Your task to perform on an android device: change notifications settings Image 0: 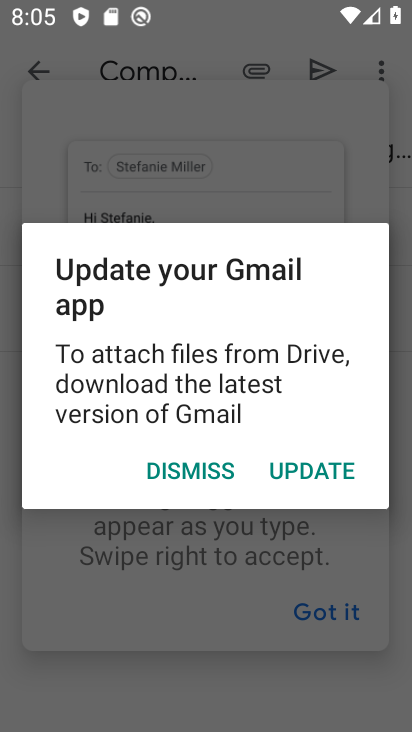
Step 0: click (308, 459)
Your task to perform on an android device: change notifications settings Image 1: 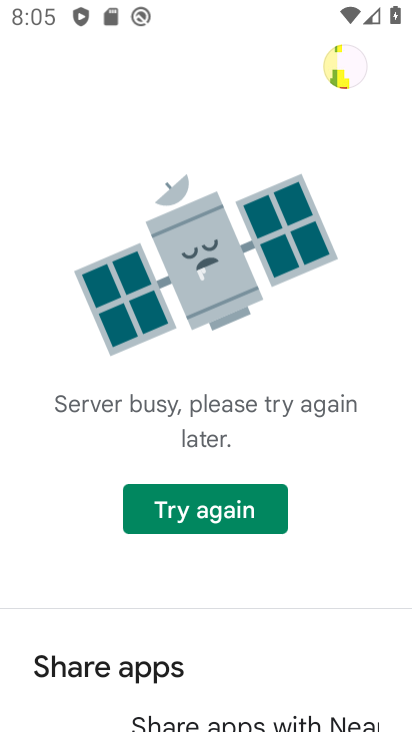
Step 1: press home button
Your task to perform on an android device: change notifications settings Image 2: 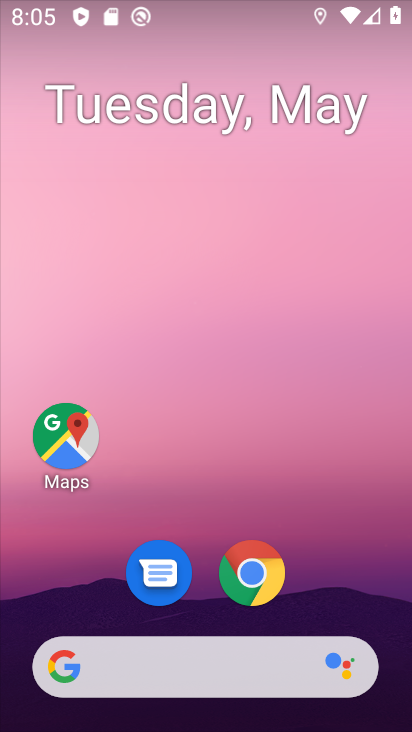
Step 2: drag from (393, 679) to (329, 247)
Your task to perform on an android device: change notifications settings Image 3: 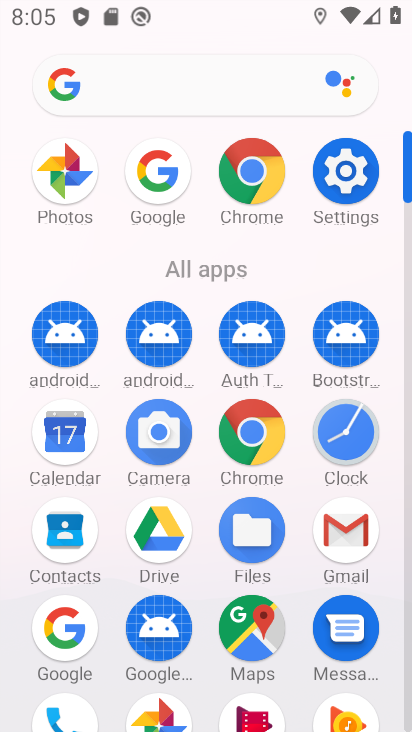
Step 3: click (359, 168)
Your task to perform on an android device: change notifications settings Image 4: 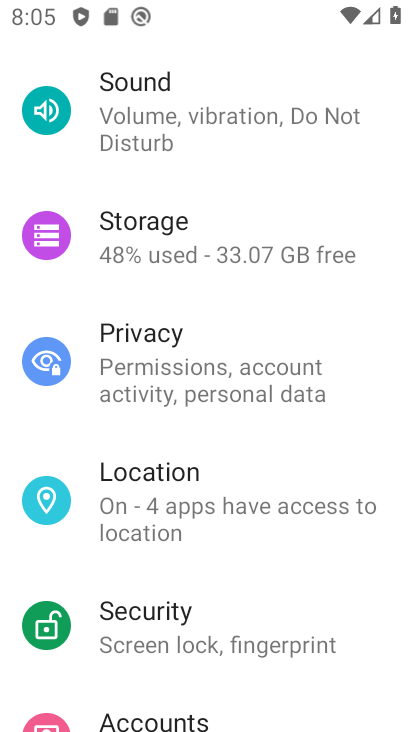
Step 4: click (270, 330)
Your task to perform on an android device: change notifications settings Image 5: 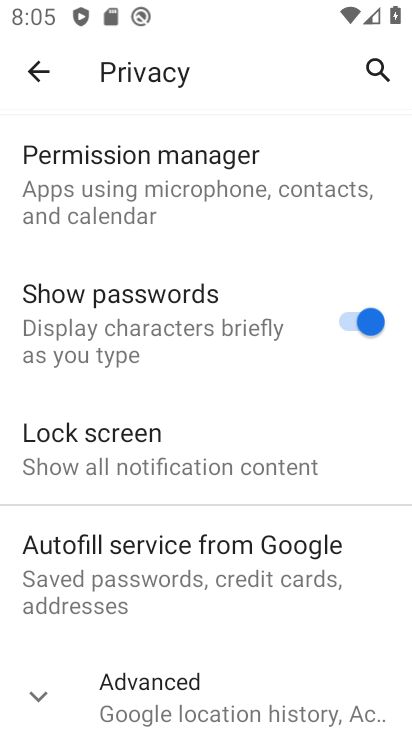
Step 5: click (32, 67)
Your task to perform on an android device: change notifications settings Image 6: 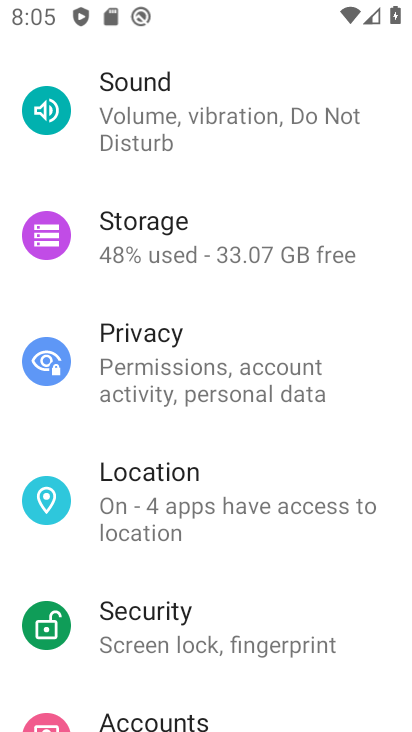
Step 6: drag from (265, 177) to (271, 581)
Your task to perform on an android device: change notifications settings Image 7: 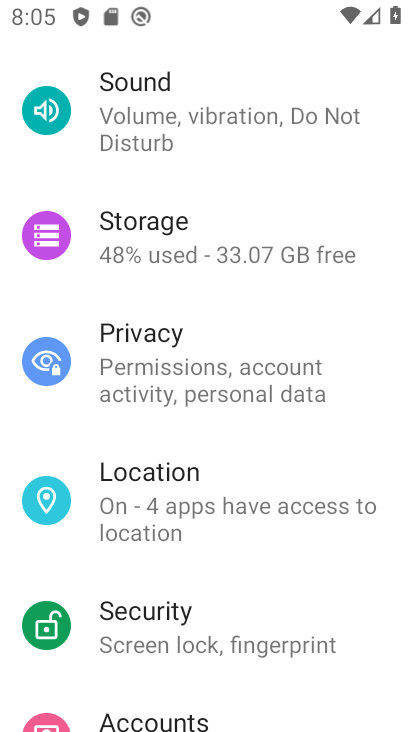
Step 7: drag from (335, 150) to (360, 568)
Your task to perform on an android device: change notifications settings Image 8: 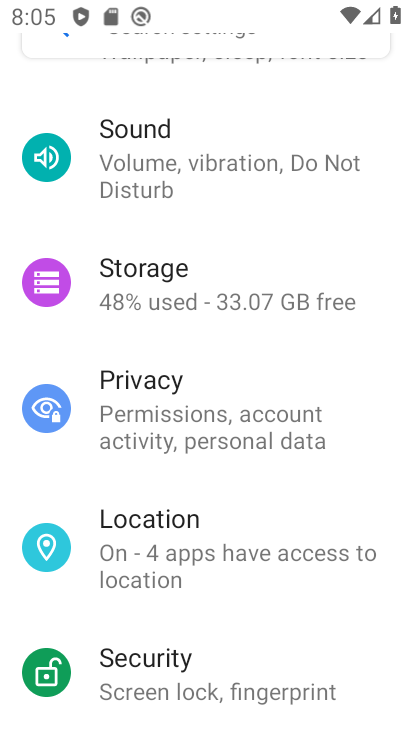
Step 8: drag from (395, 286) to (411, 465)
Your task to perform on an android device: change notifications settings Image 9: 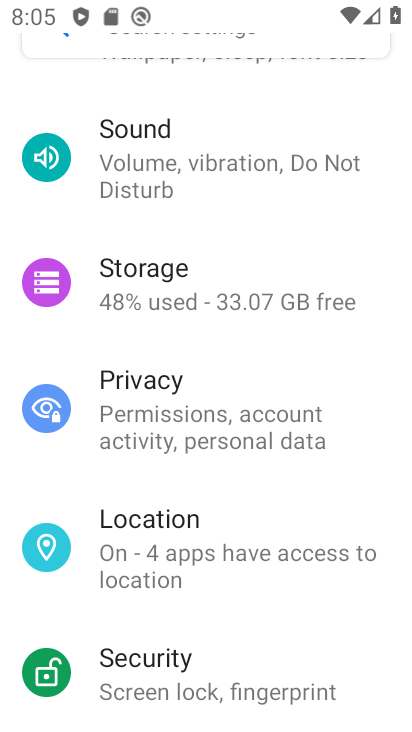
Step 9: drag from (333, 94) to (300, 547)
Your task to perform on an android device: change notifications settings Image 10: 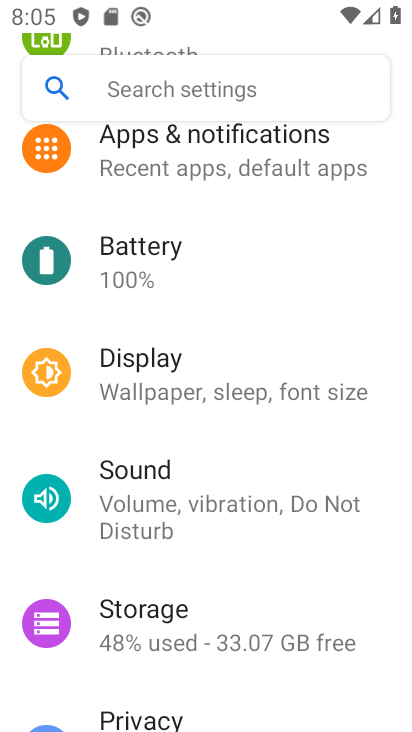
Step 10: drag from (326, 157) to (358, 529)
Your task to perform on an android device: change notifications settings Image 11: 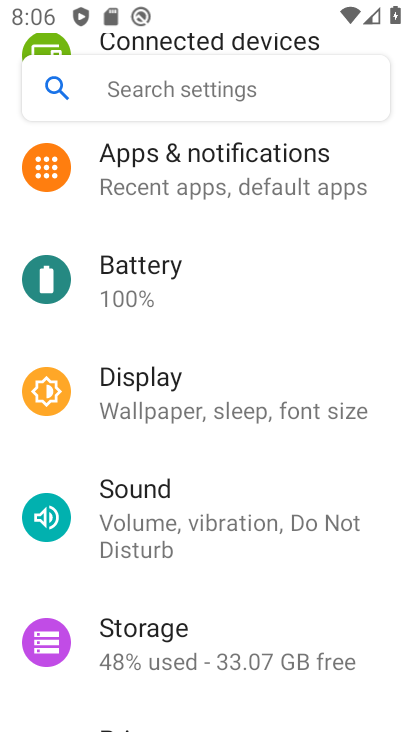
Step 11: click (217, 170)
Your task to perform on an android device: change notifications settings Image 12: 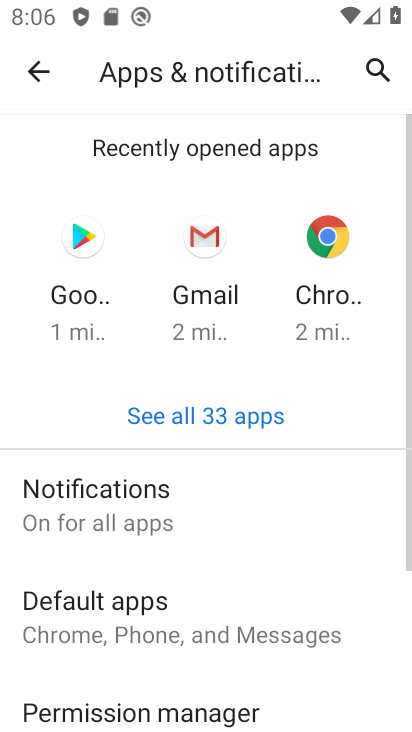
Step 12: click (62, 509)
Your task to perform on an android device: change notifications settings Image 13: 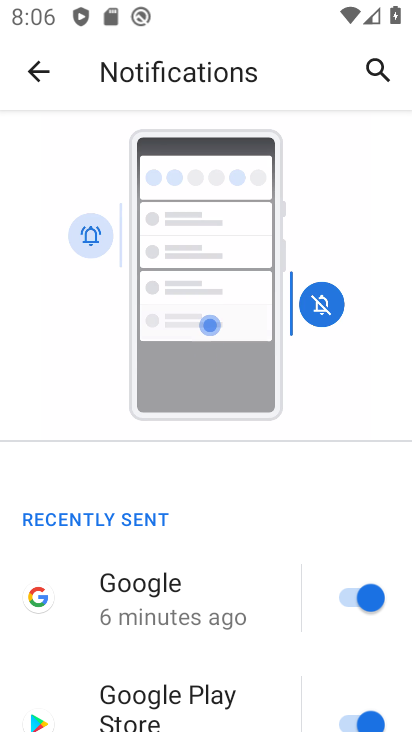
Step 13: click (338, 595)
Your task to perform on an android device: change notifications settings Image 14: 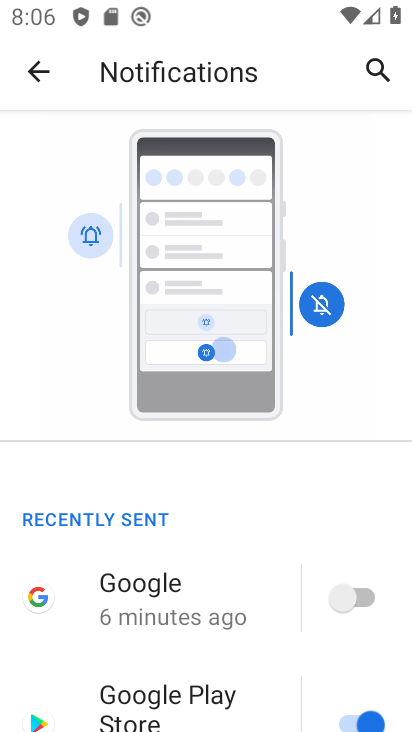
Step 14: drag from (274, 577) to (282, 442)
Your task to perform on an android device: change notifications settings Image 15: 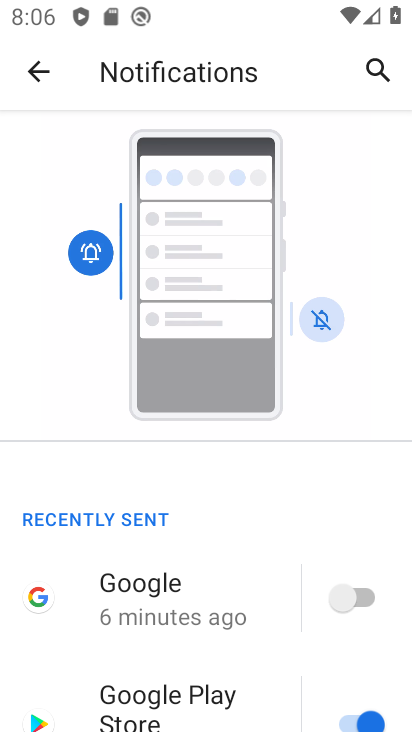
Step 15: click (345, 723)
Your task to perform on an android device: change notifications settings Image 16: 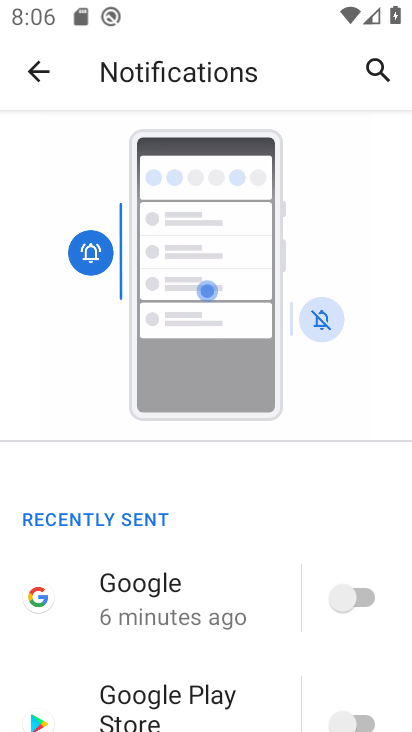
Step 16: drag from (267, 689) to (287, 501)
Your task to perform on an android device: change notifications settings Image 17: 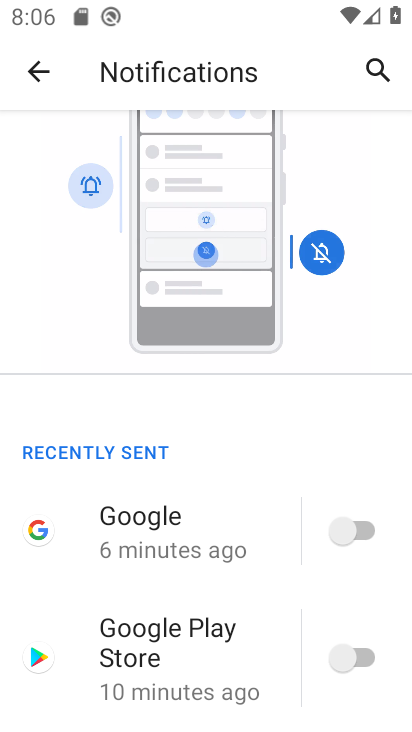
Step 17: drag from (285, 690) to (273, 336)
Your task to perform on an android device: change notifications settings Image 18: 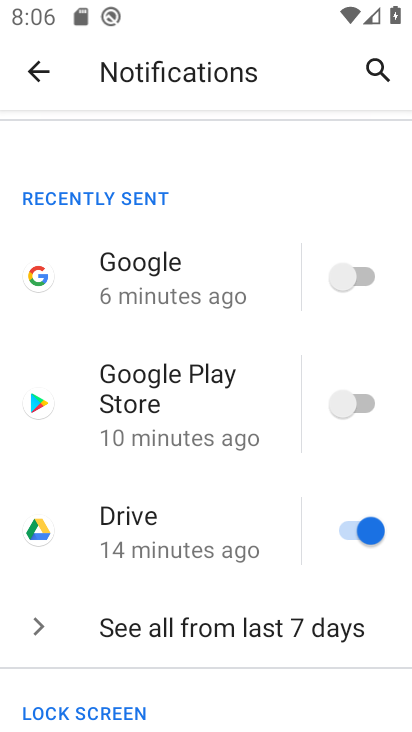
Step 18: click (347, 532)
Your task to perform on an android device: change notifications settings Image 19: 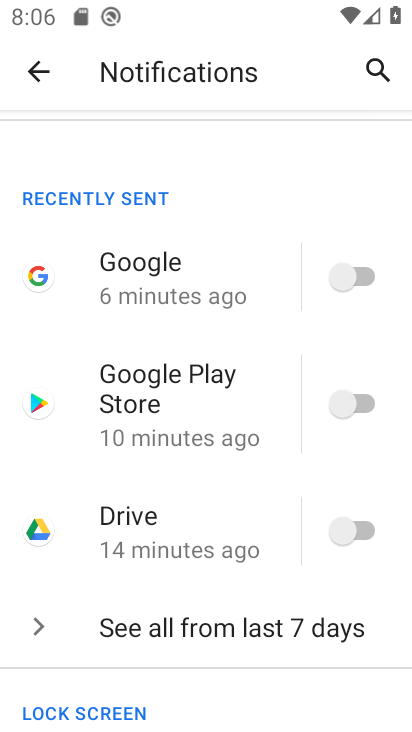
Step 19: task complete